Your task to perform on an android device: turn off airplane mode Image 0: 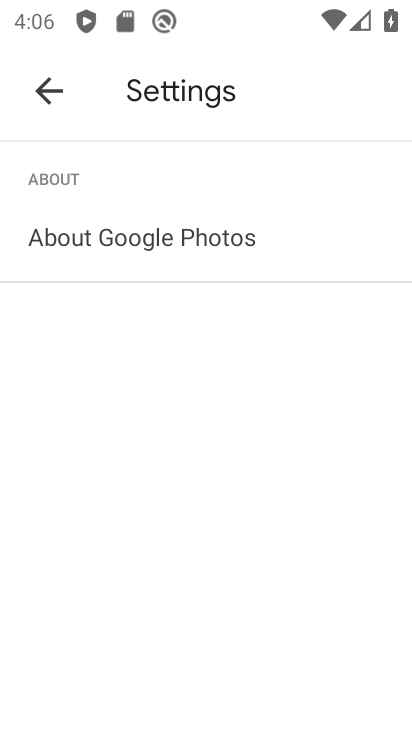
Step 0: press home button
Your task to perform on an android device: turn off airplane mode Image 1: 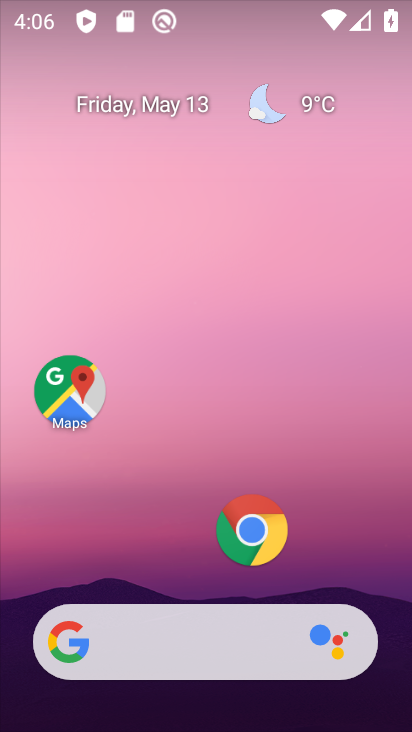
Step 1: task complete